Your task to perform on an android device: Open maps Image 0: 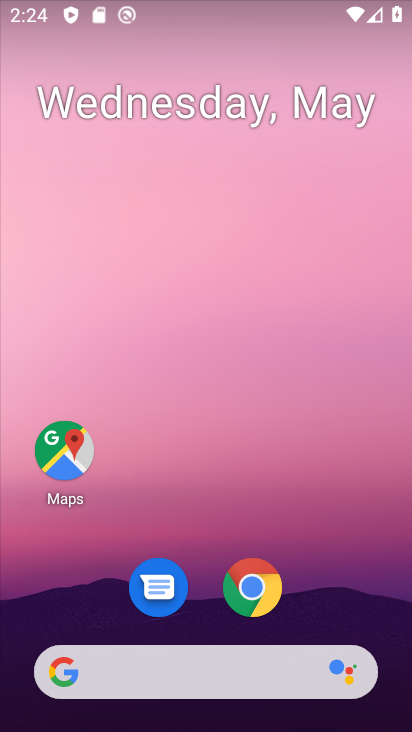
Step 0: click (80, 431)
Your task to perform on an android device: Open maps Image 1: 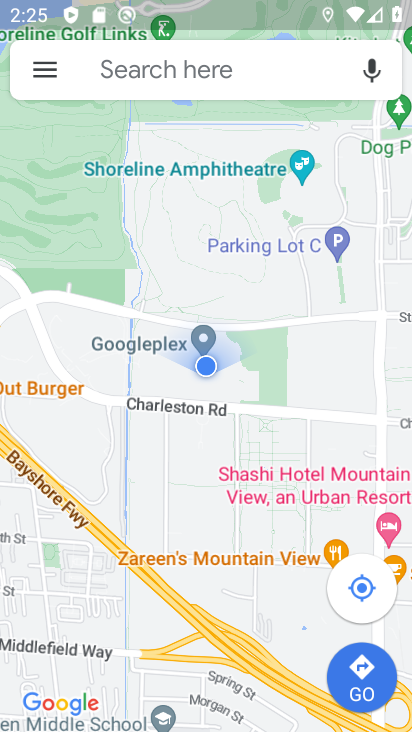
Step 1: task complete